Your task to perform on an android device: uninstall "Messenger Lite" Image 0: 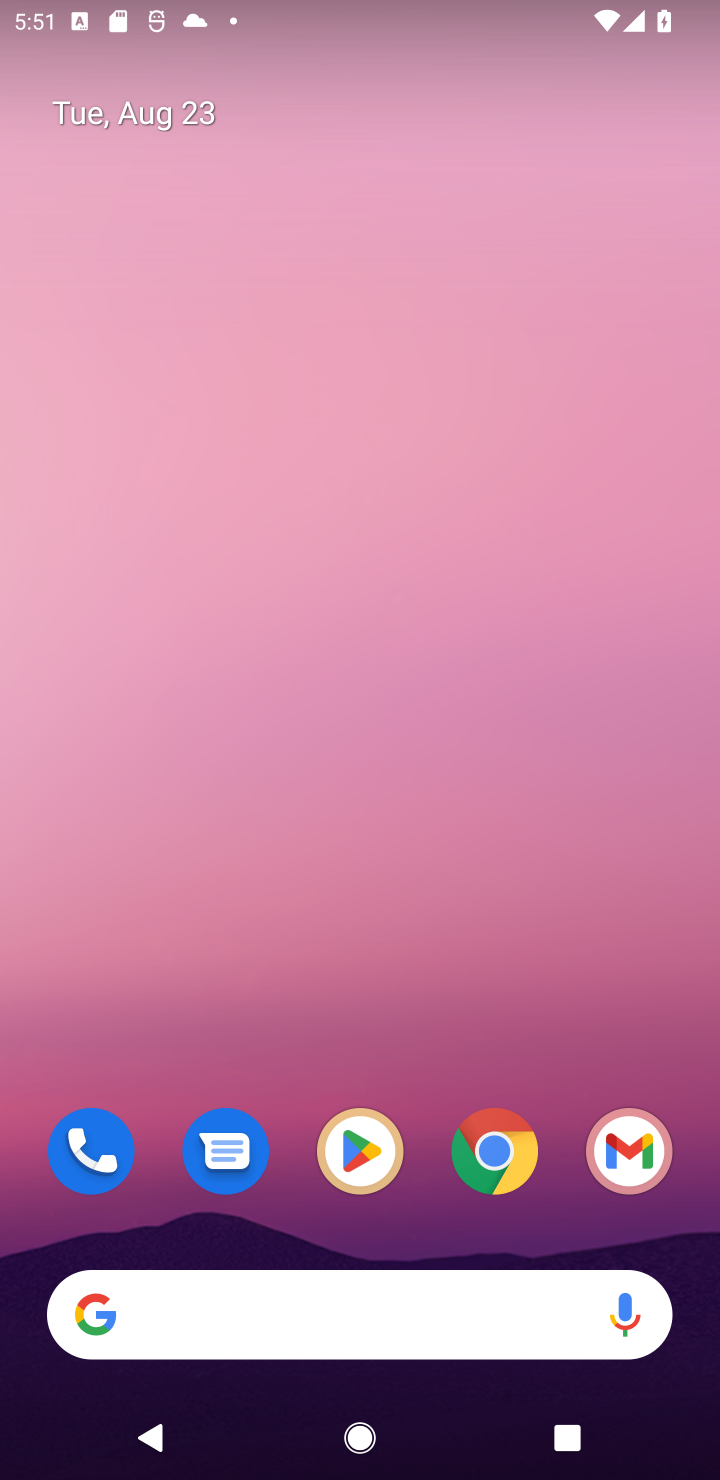
Step 0: press home button
Your task to perform on an android device: uninstall "Messenger Lite" Image 1: 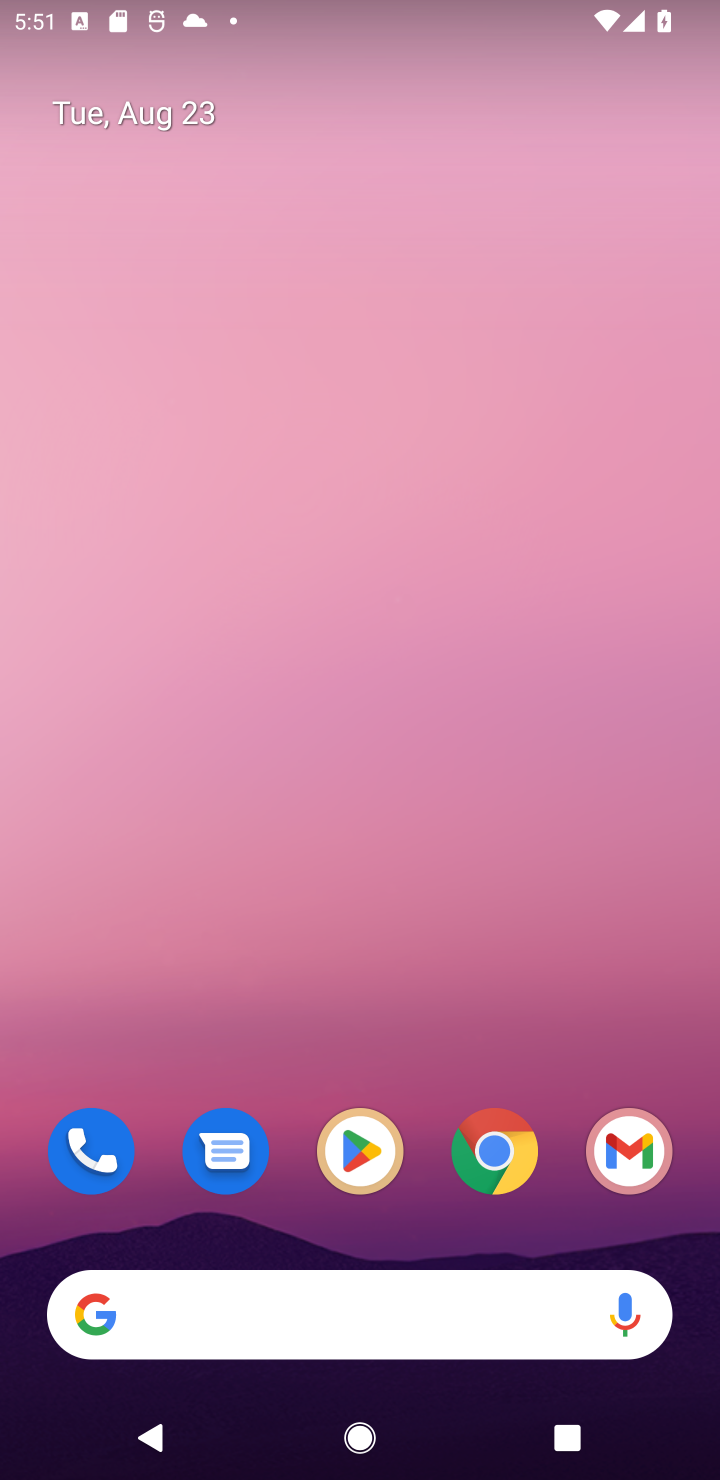
Step 1: click (369, 1150)
Your task to perform on an android device: uninstall "Messenger Lite" Image 2: 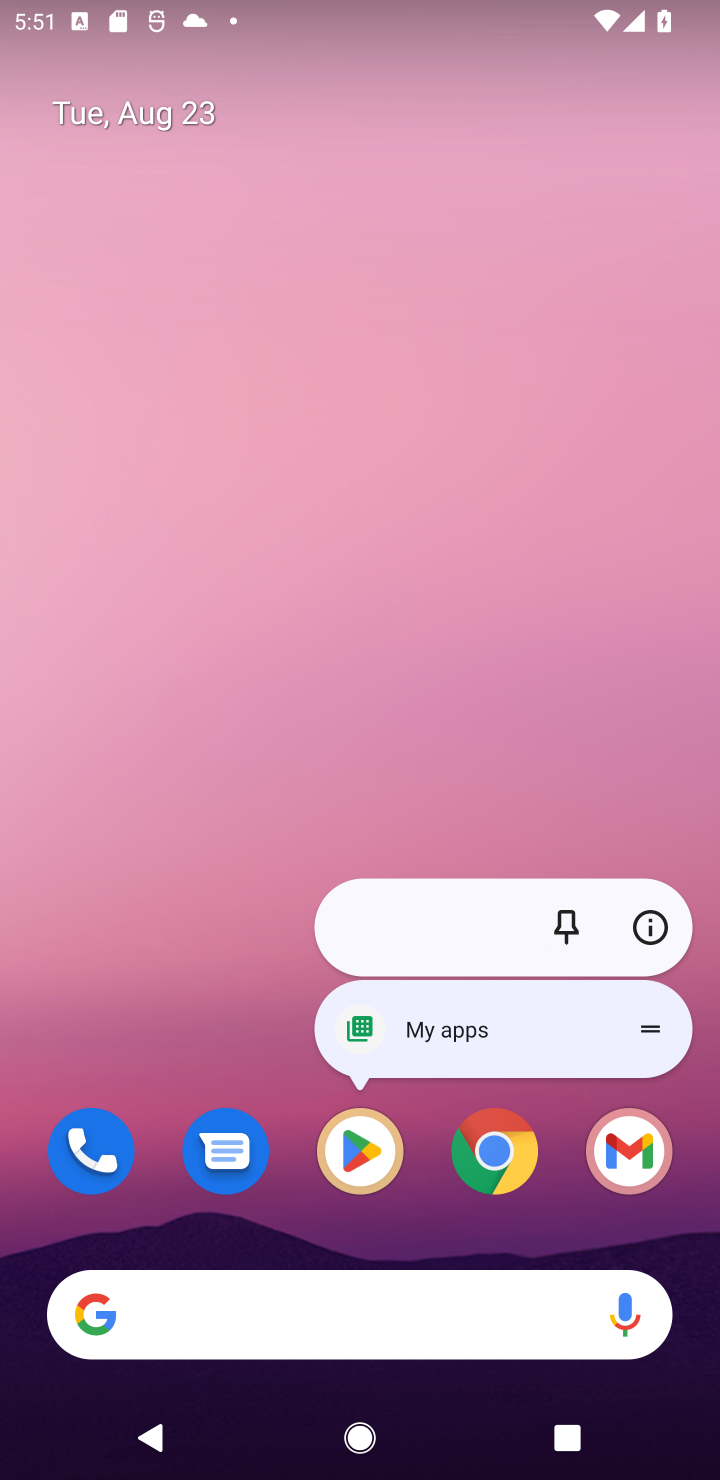
Step 2: click (369, 1155)
Your task to perform on an android device: uninstall "Messenger Lite" Image 3: 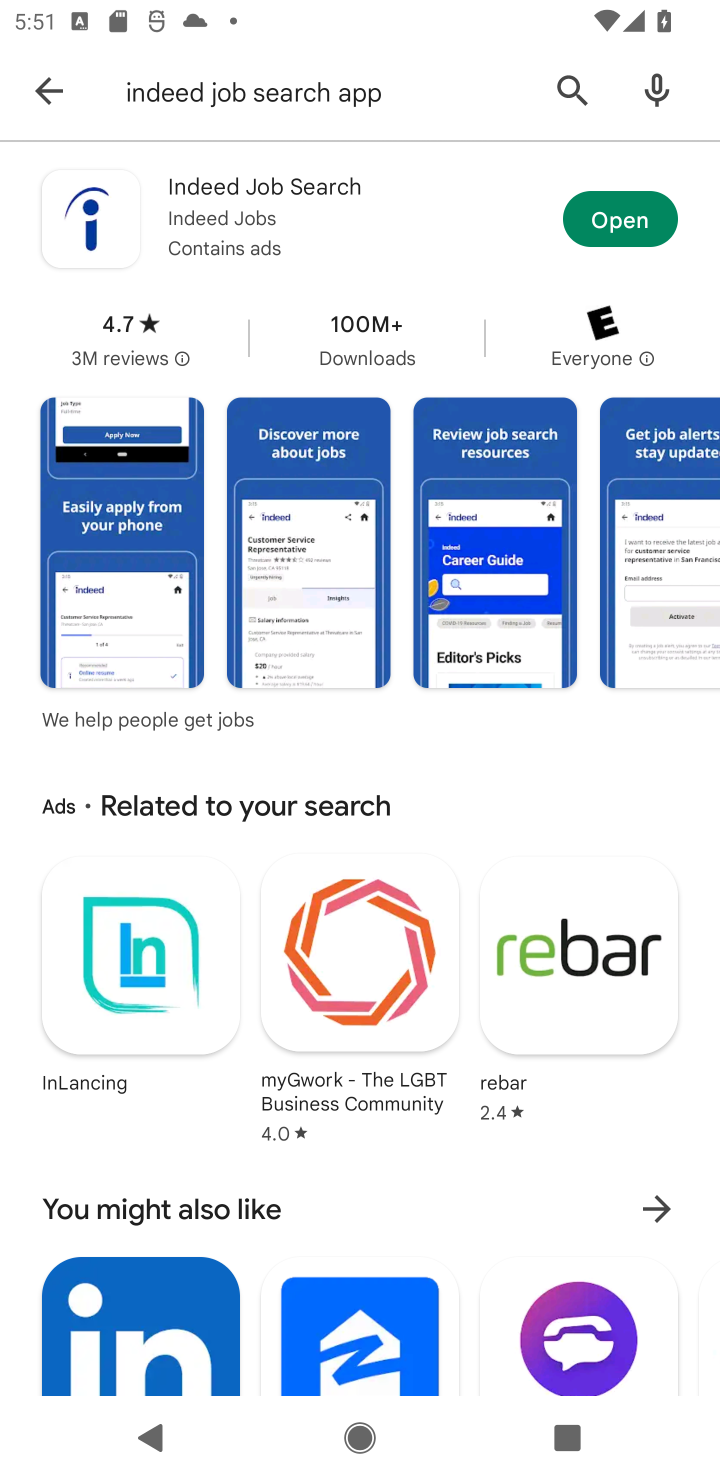
Step 3: click (568, 80)
Your task to perform on an android device: uninstall "Messenger Lite" Image 4: 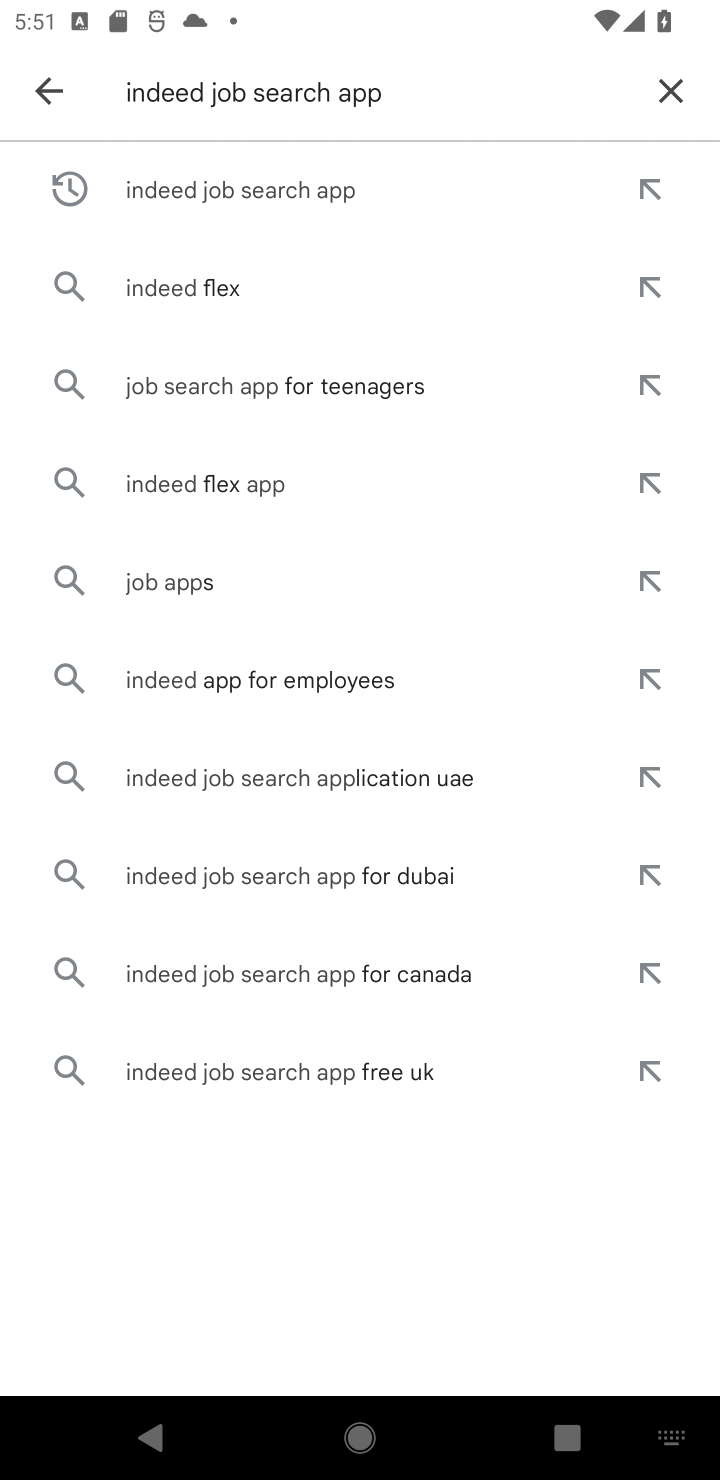
Step 4: click (672, 88)
Your task to perform on an android device: uninstall "Messenger Lite" Image 5: 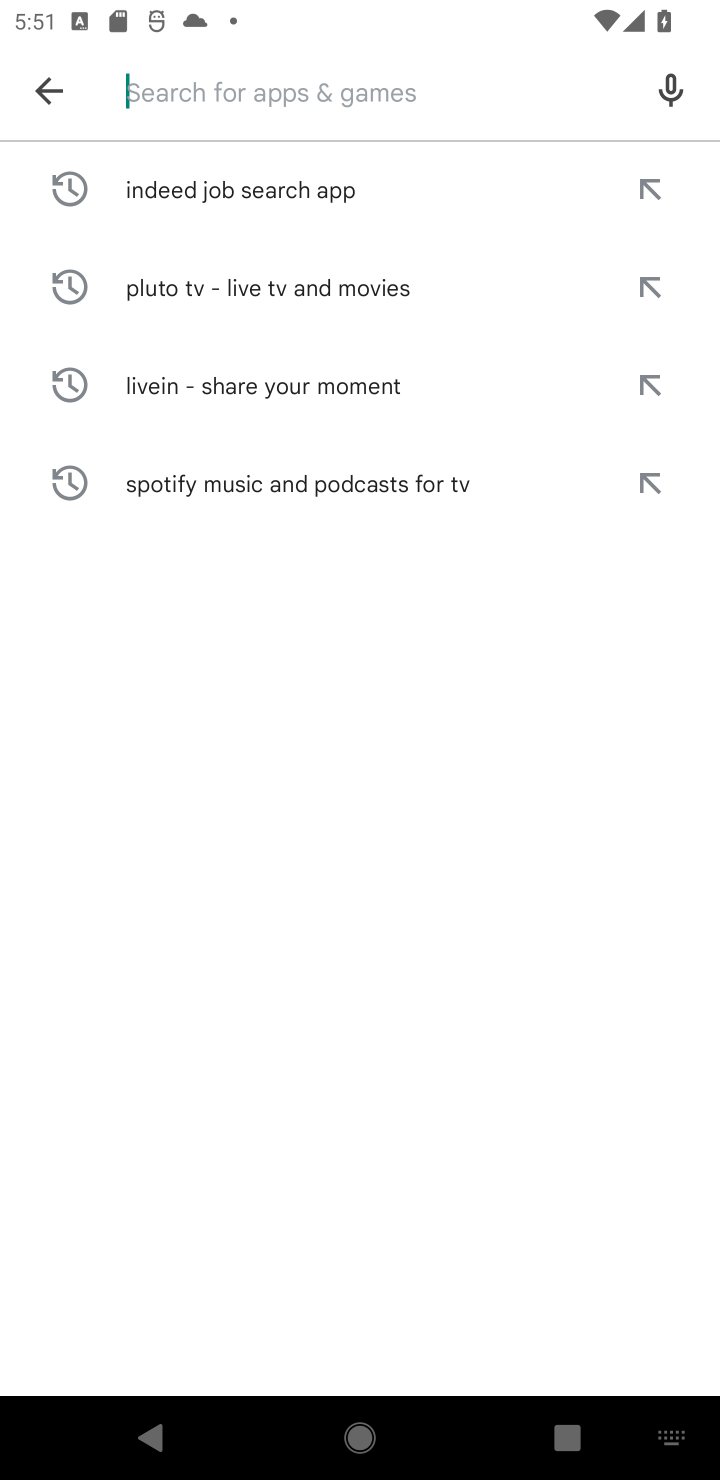
Step 5: type "Messenger Lite"
Your task to perform on an android device: uninstall "Messenger Lite" Image 6: 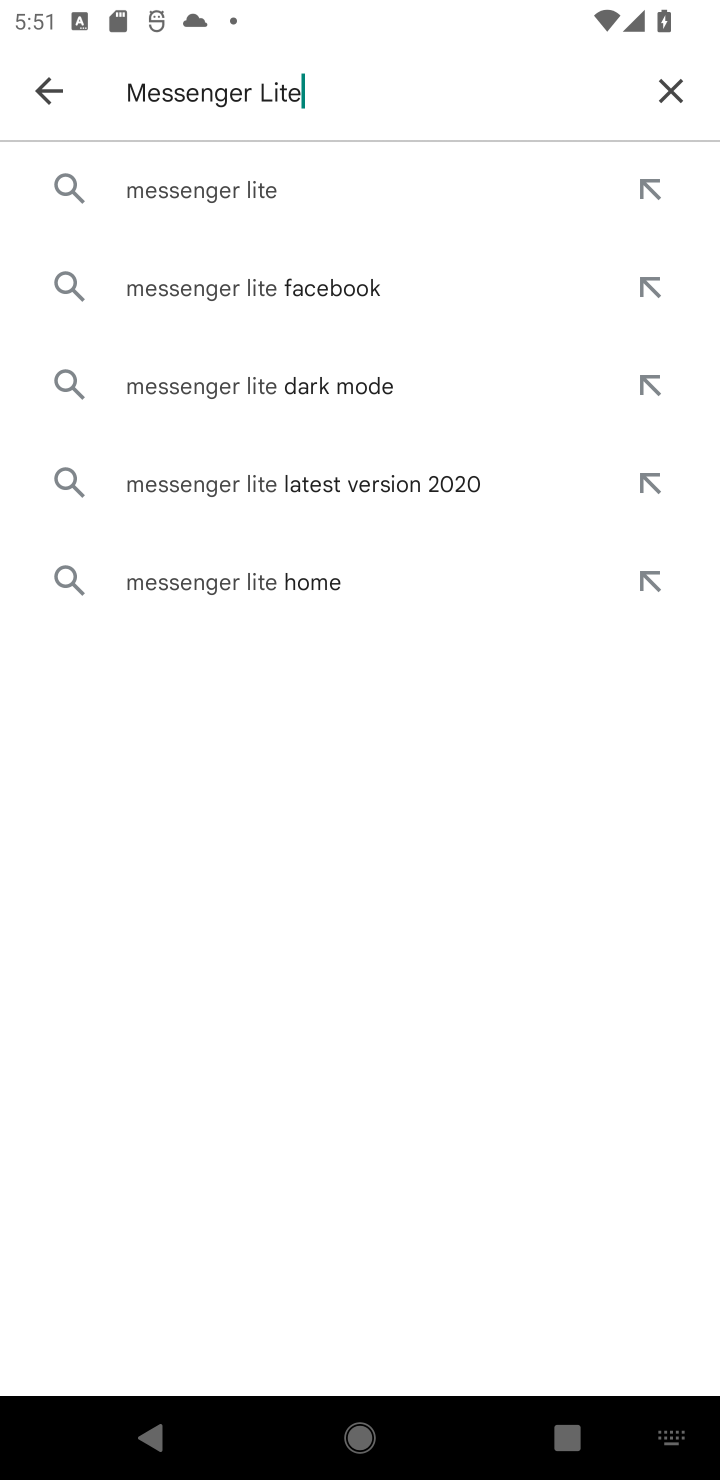
Step 6: click (239, 191)
Your task to perform on an android device: uninstall "Messenger Lite" Image 7: 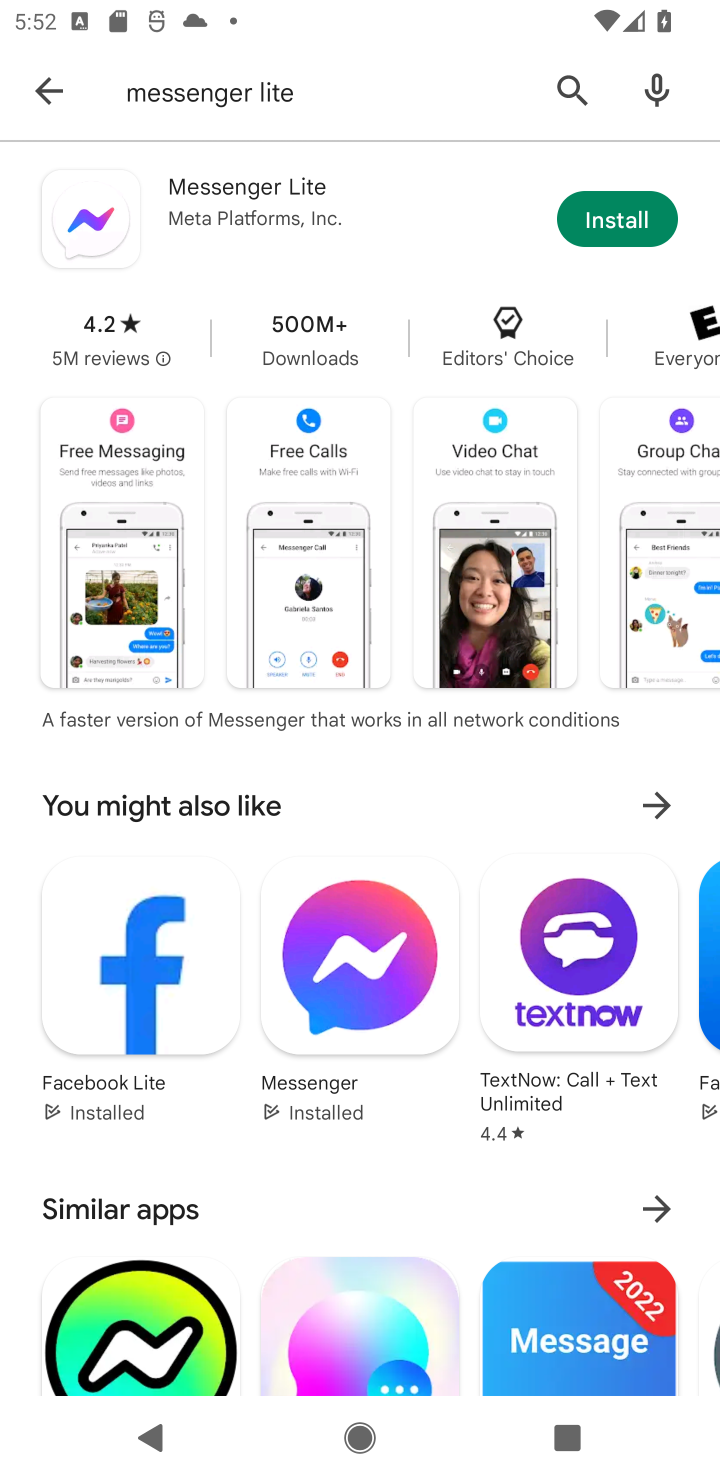
Step 7: task complete